Your task to perform on an android device: Open maps Image 0: 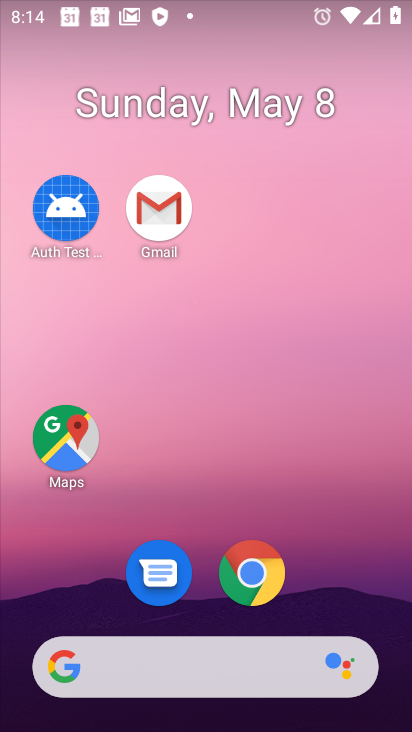
Step 0: click (55, 428)
Your task to perform on an android device: Open maps Image 1: 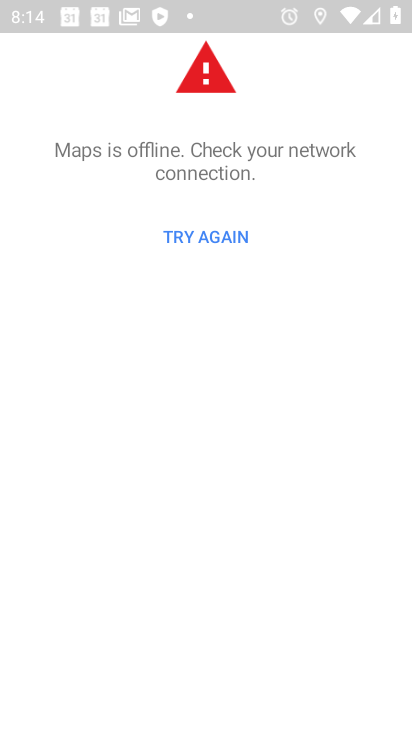
Step 1: task complete